Your task to perform on an android device: toggle wifi Image 0: 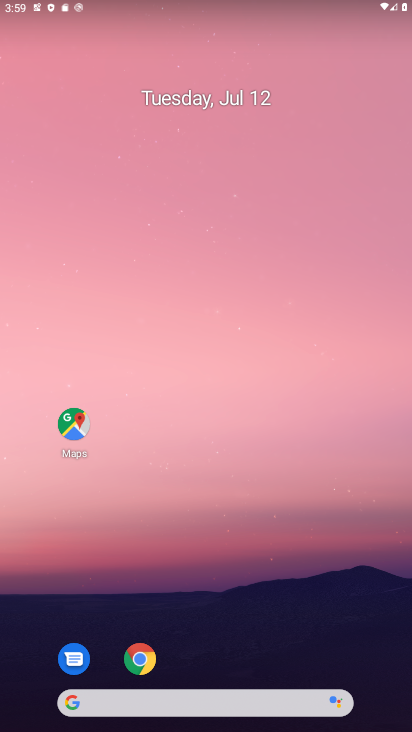
Step 0: drag from (204, 561) to (211, 279)
Your task to perform on an android device: toggle wifi Image 1: 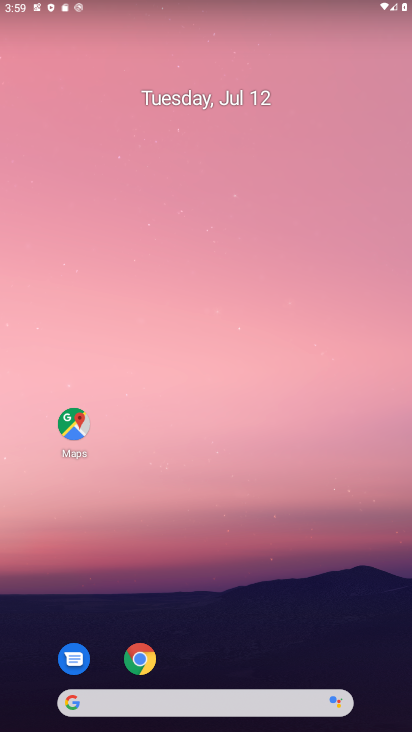
Step 1: drag from (201, 680) to (198, 172)
Your task to perform on an android device: toggle wifi Image 2: 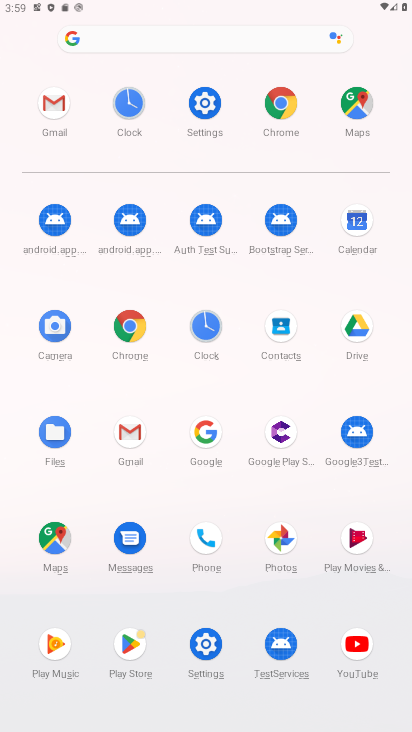
Step 2: click (213, 102)
Your task to perform on an android device: toggle wifi Image 3: 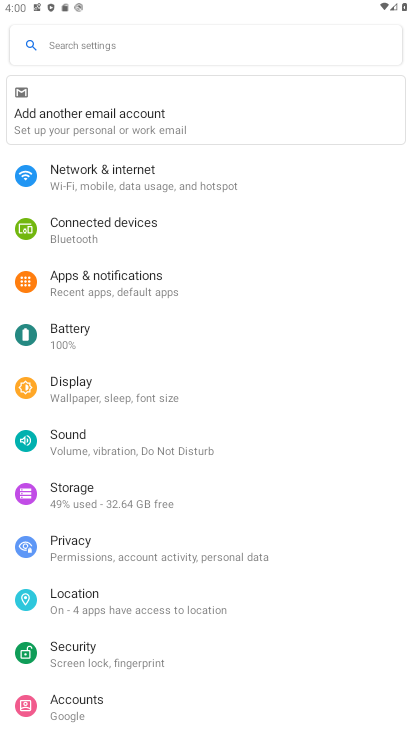
Step 3: click (102, 177)
Your task to perform on an android device: toggle wifi Image 4: 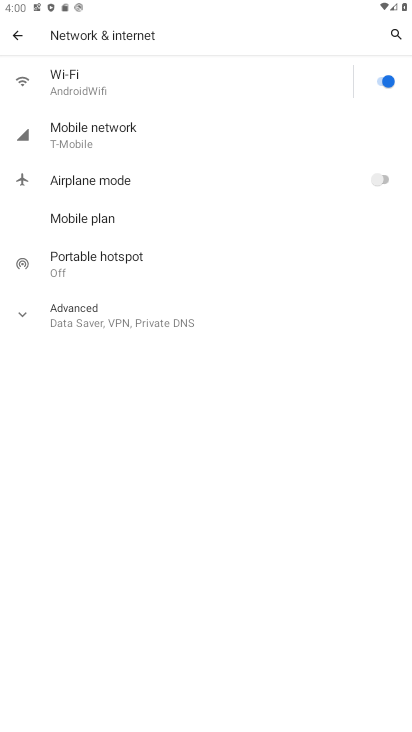
Step 4: click (383, 76)
Your task to perform on an android device: toggle wifi Image 5: 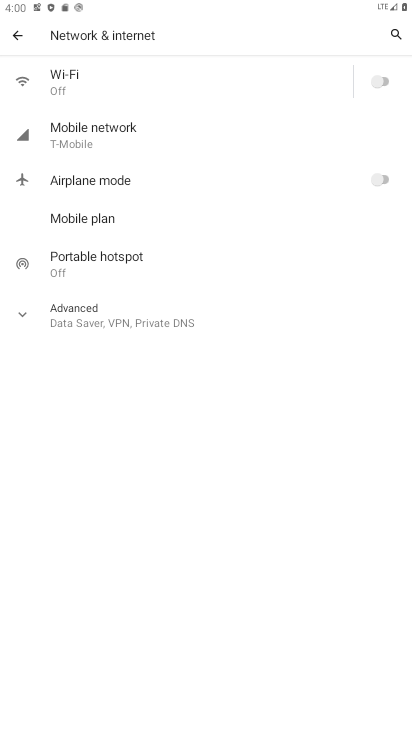
Step 5: task complete